Your task to perform on an android device: open wifi settings Image 0: 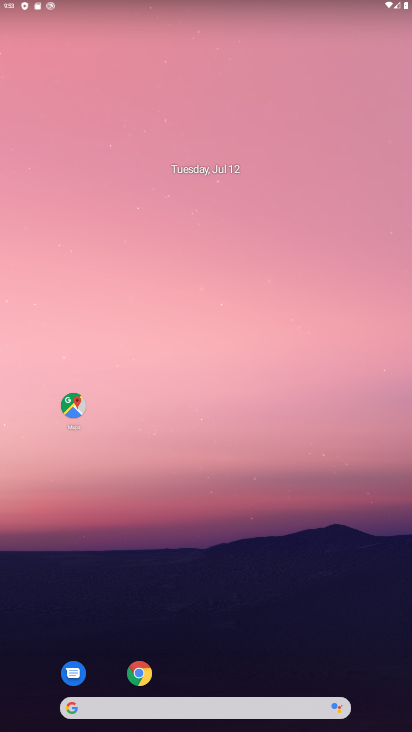
Step 0: drag from (291, 599) to (241, 75)
Your task to perform on an android device: open wifi settings Image 1: 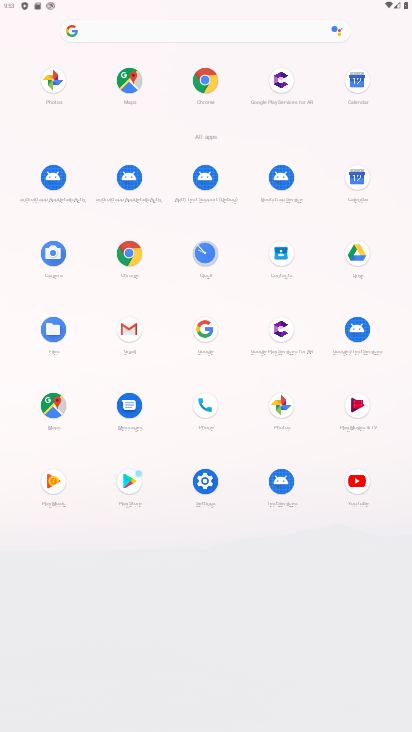
Step 1: click (212, 492)
Your task to perform on an android device: open wifi settings Image 2: 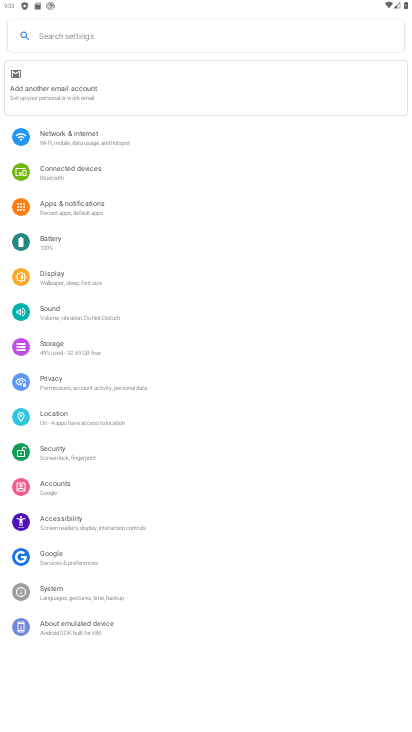
Step 2: click (92, 139)
Your task to perform on an android device: open wifi settings Image 3: 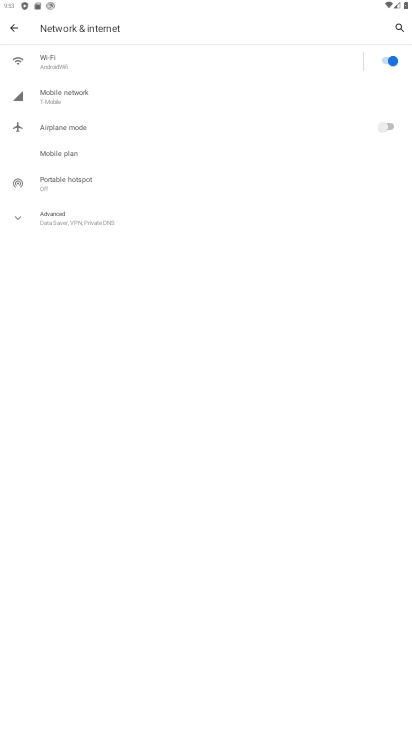
Step 3: click (68, 61)
Your task to perform on an android device: open wifi settings Image 4: 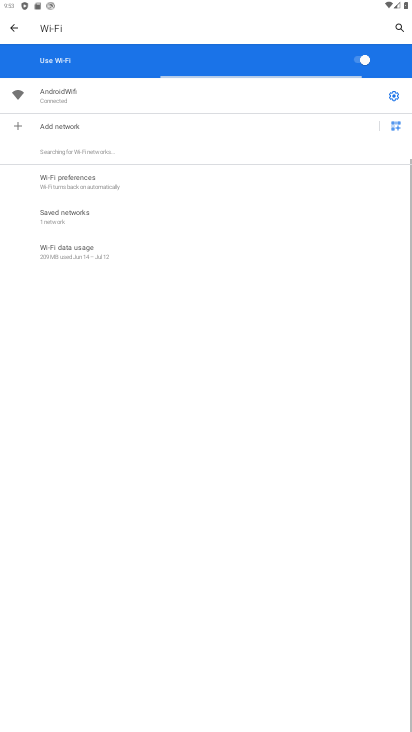
Step 4: task complete